Your task to perform on an android device: turn off airplane mode Image 0: 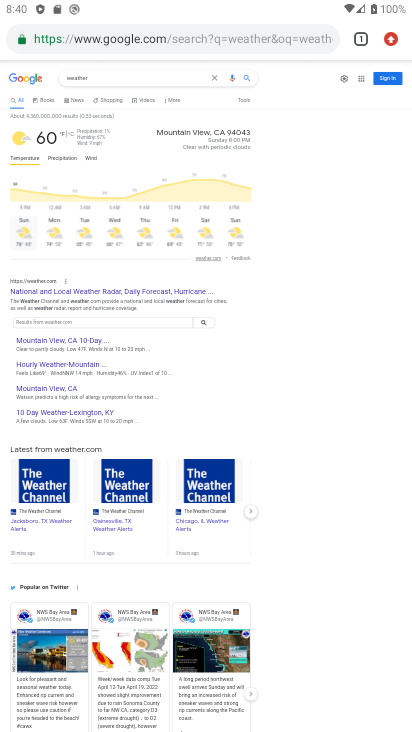
Step 0: press home button
Your task to perform on an android device: turn off airplane mode Image 1: 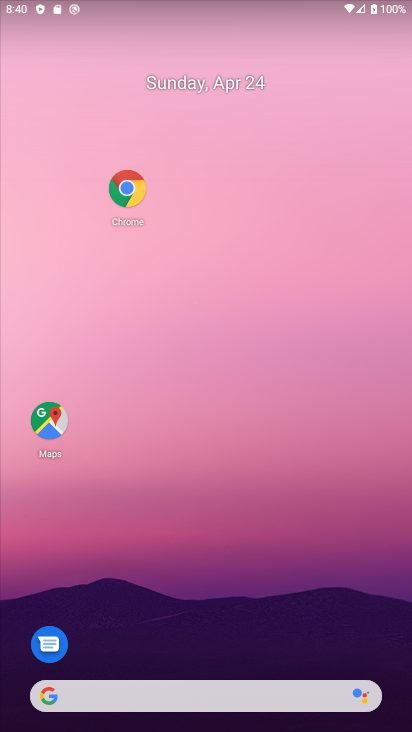
Step 1: drag from (195, 564) to (203, 121)
Your task to perform on an android device: turn off airplane mode Image 2: 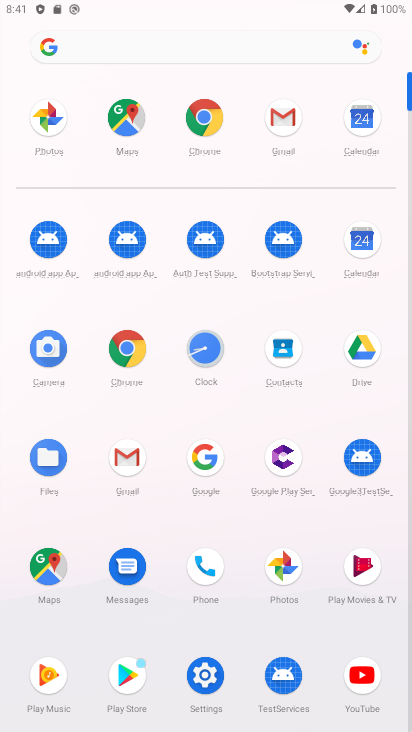
Step 2: click (200, 662)
Your task to perform on an android device: turn off airplane mode Image 3: 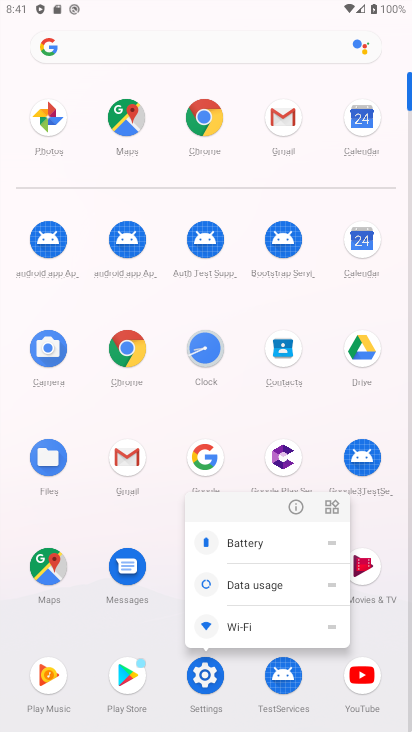
Step 3: click (292, 506)
Your task to perform on an android device: turn off airplane mode Image 4: 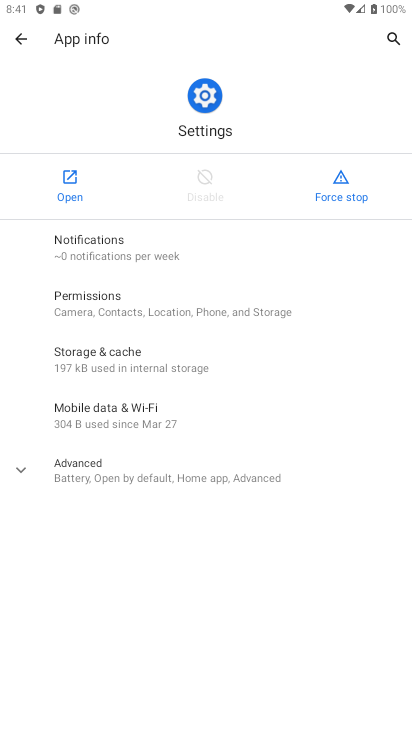
Step 4: click (82, 166)
Your task to perform on an android device: turn off airplane mode Image 5: 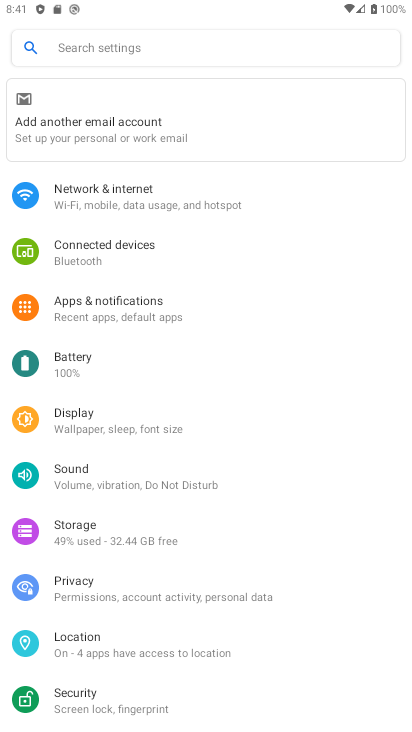
Step 5: click (186, 204)
Your task to perform on an android device: turn off airplane mode Image 6: 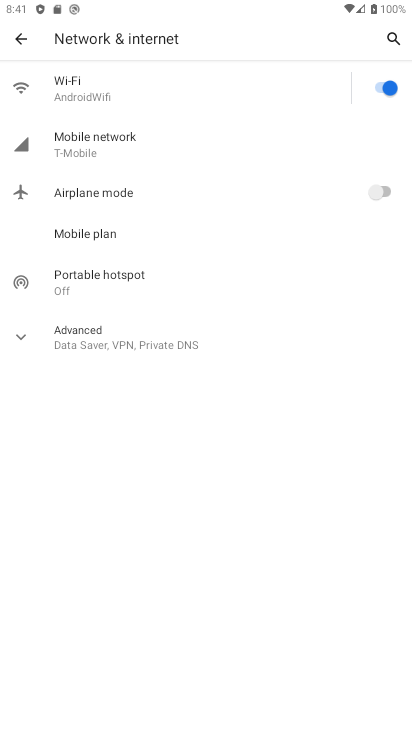
Step 6: click (206, 191)
Your task to perform on an android device: turn off airplane mode Image 7: 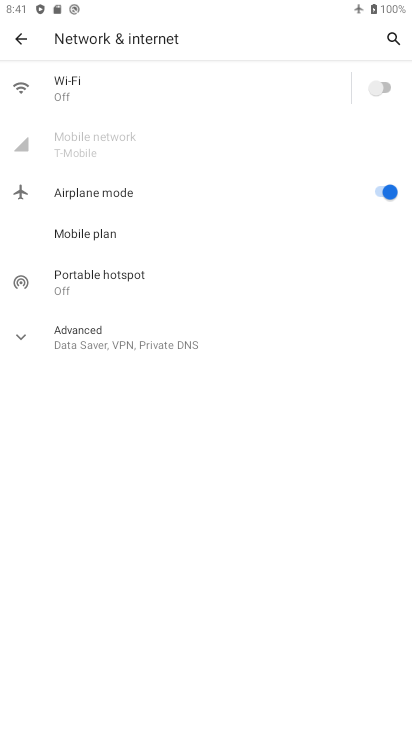
Step 7: task complete